Your task to perform on an android device: Open Reddit.com Image 0: 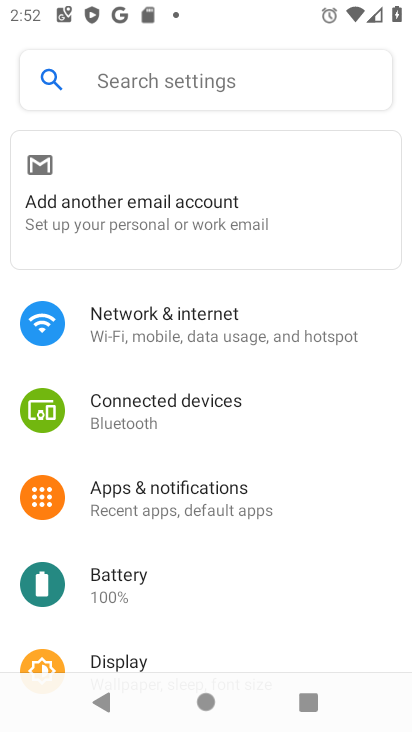
Step 0: press home button
Your task to perform on an android device: Open Reddit.com Image 1: 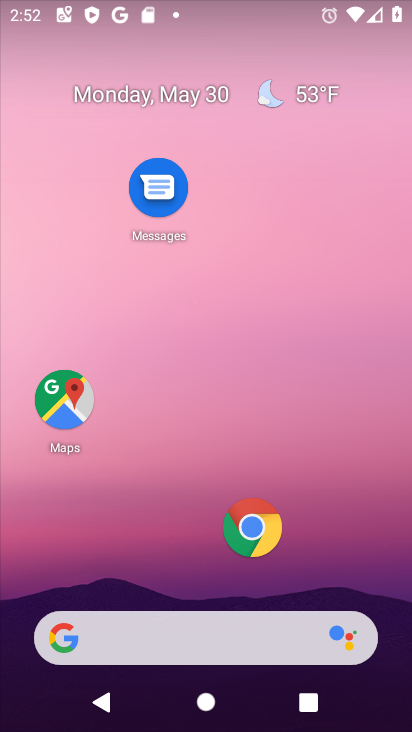
Step 1: drag from (205, 560) to (226, 48)
Your task to perform on an android device: Open Reddit.com Image 2: 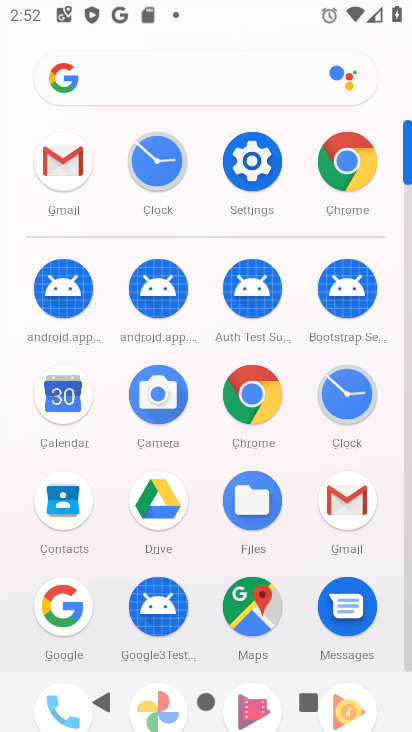
Step 2: click (258, 395)
Your task to perform on an android device: Open Reddit.com Image 3: 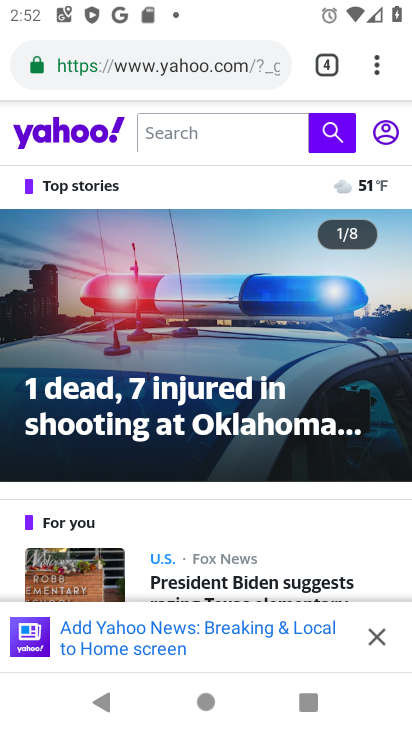
Step 3: click (338, 69)
Your task to perform on an android device: Open Reddit.com Image 4: 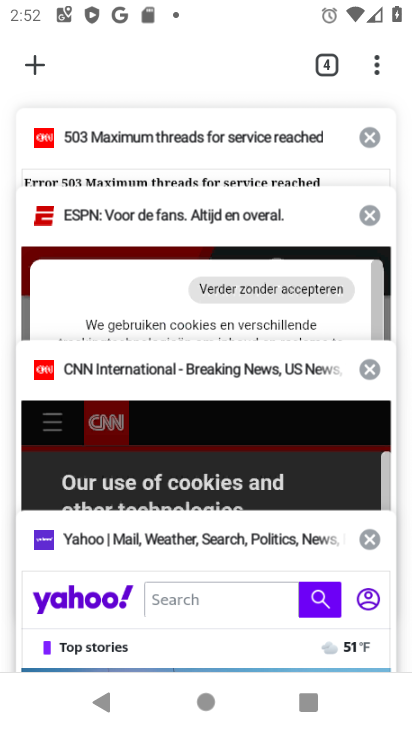
Step 4: click (31, 67)
Your task to perform on an android device: Open Reddit.com Image 5: 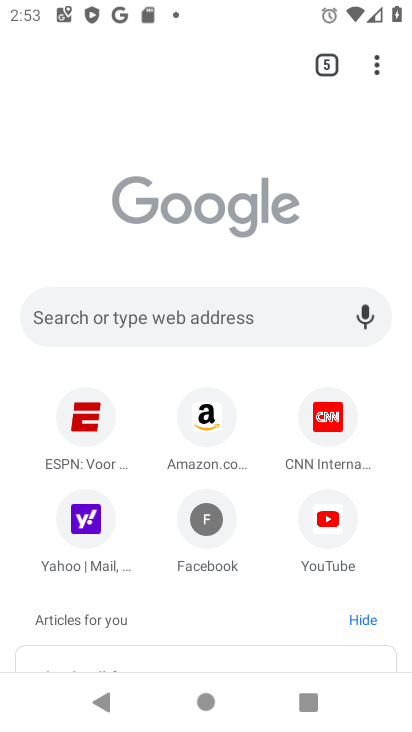
Step 5: click (189, 323)
Your task to perform on an android device: Open Reddit.com Image 6: 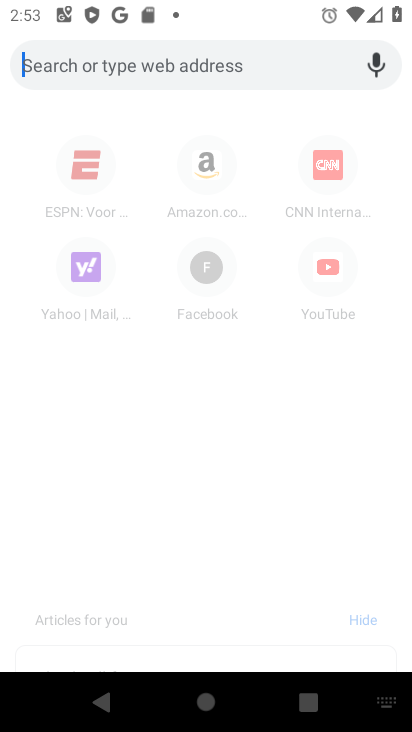
Step 6: type "Reddit.com"
Your task to perform on an android device: Open Reddit.com Image 7: 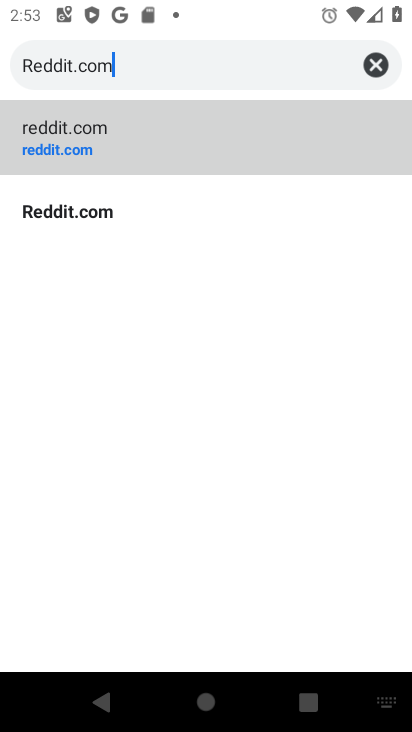
Step 7: type ""
Your task to perform on an android device: Open Reddit.com Image 8: 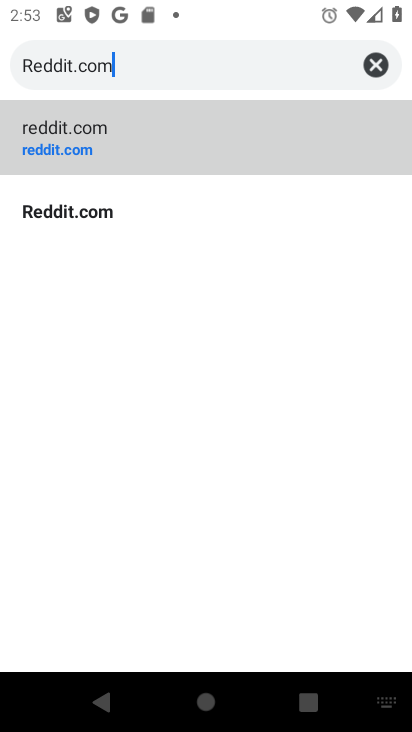
Step 8: click (191, 140)
Your task to perform on an android device: Open Reddit.com Image 9: 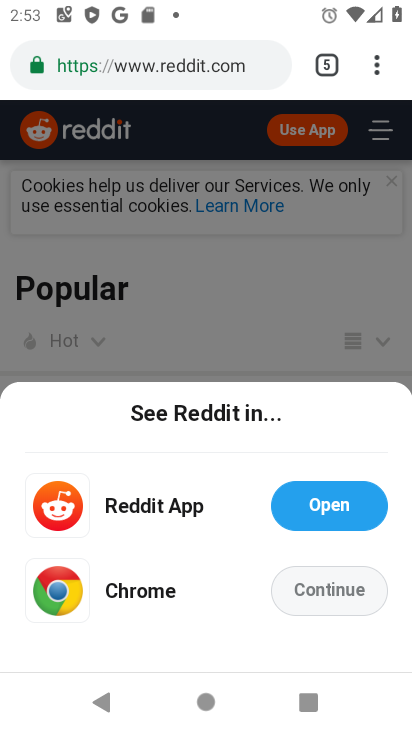
Step 9: click (340, 601)
Your task to perform on an android device: Open Reddit.com Image 10: 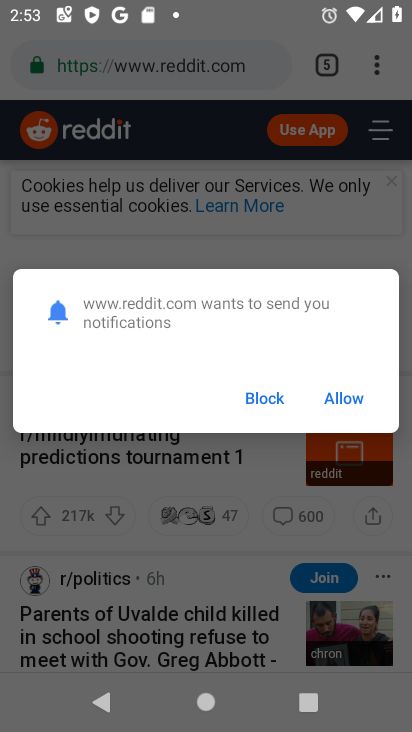
Step 10: task complete